Your task to perform on an android device: turn off improve location accuracy Image 0: 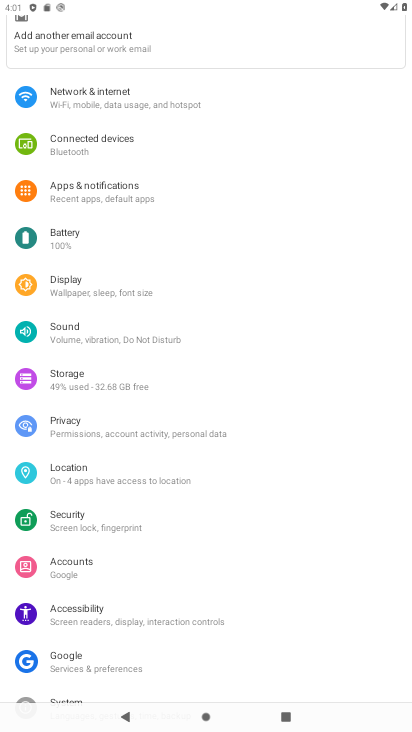
Step 0: drag from (192, 650) to (234, 469)
Your task to perform on an android device: turn off improve location accuracy Image 1: 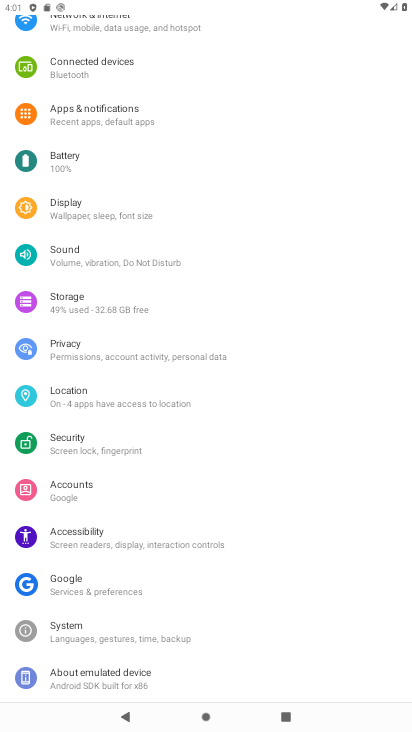
Step 1: click (98, 399)
Your task to perform on an android device: turn off improve location accuracy Image 2: 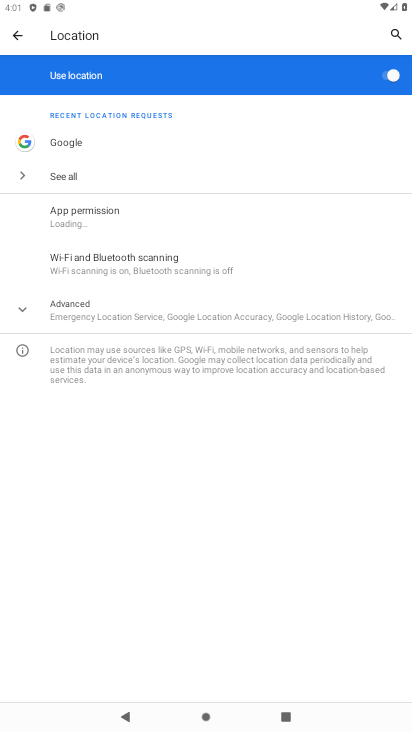
Step 2: click (135, 324)
Your task to perform on an android device: turn off improve location accuracy Image 3: 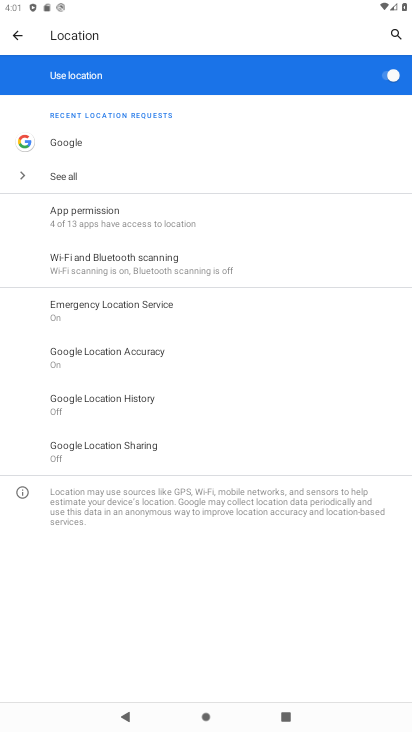
Step 3: click (171, 369)
Your task to perform on an android device: turn off improve location accuracy Image 4: 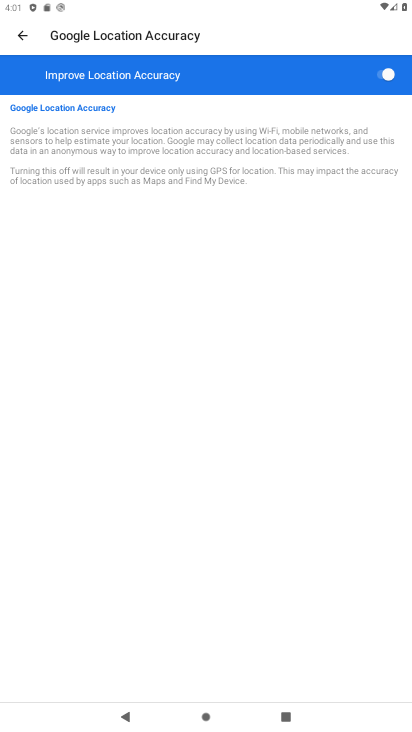
Step 4: click (387, 70)
Your task to perform on an android device: turn off improve location accuracy Image 5: 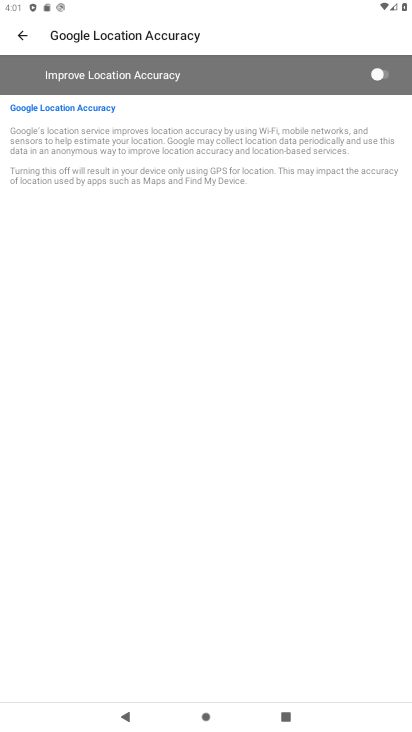
Step 5: task complete